Your task to perform on an android device: Search for Mexican restaurants on Maps Image 0: 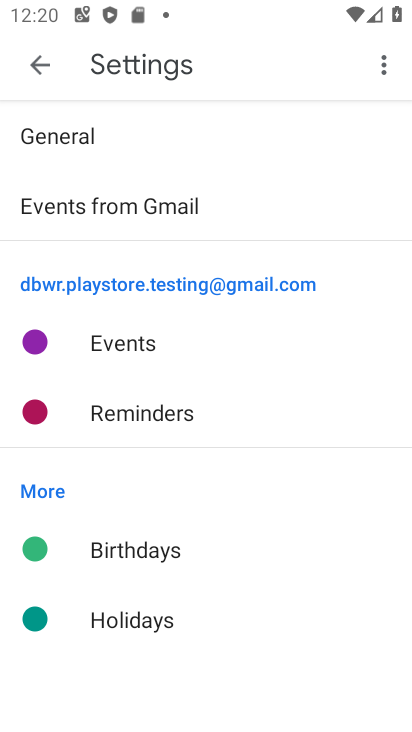
Step 0: press back button
Your task to perform on an android device: Search for Mexican restaurants on Maps Image 1: 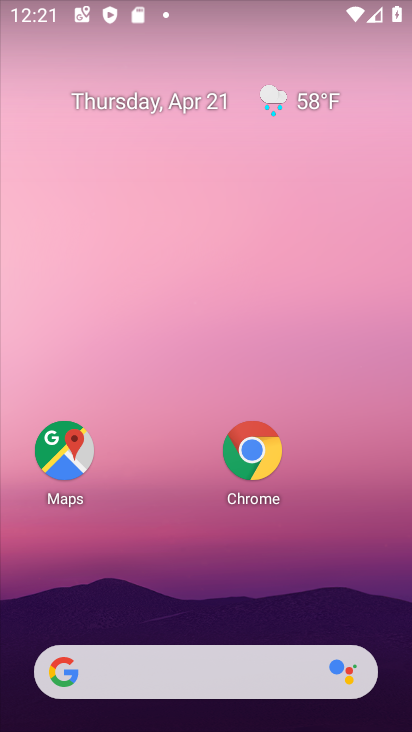
Step 1: click (70, 448)
Your task to perform on an android device: Search for Mexican restaurants on Maps Image 2: 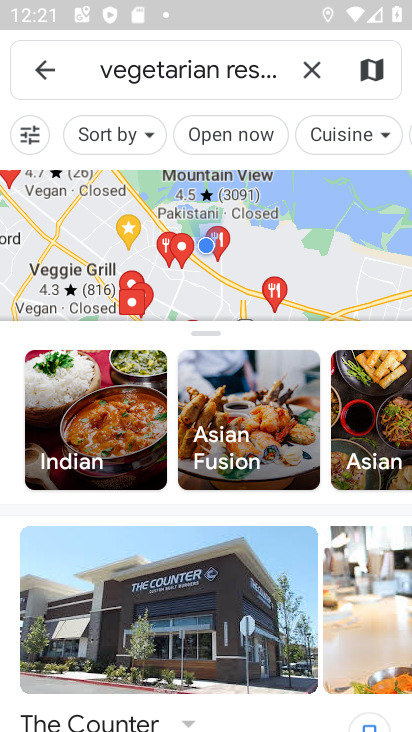
Step 2: task complete